Your task to perform on an android device: visit the assistant section in the google photos Image 0: 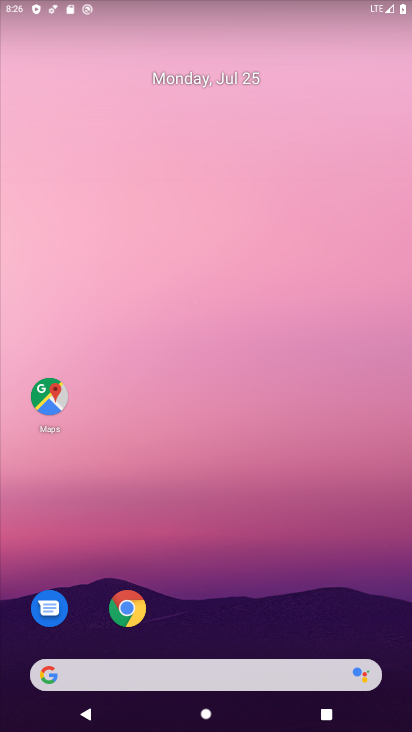
Step 0: drag from (227, 664) to (227, 78)
Your task to perform on an android device: visit the assistant section in the google photos Image 1: 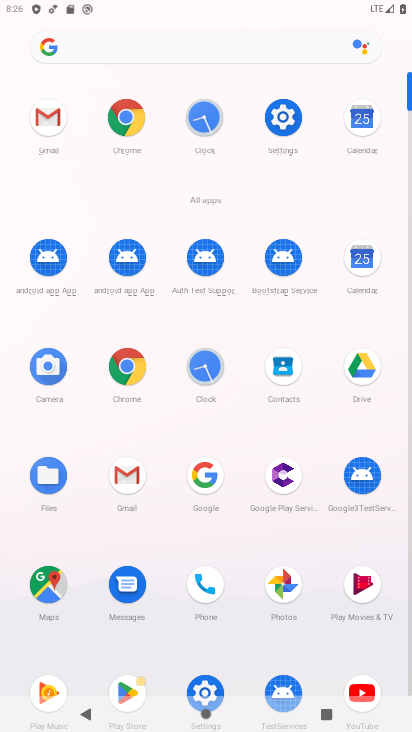
Step 1: click (286, 583)
Your task to perform on an android device: visit the assistant section in the google photos Image 2: 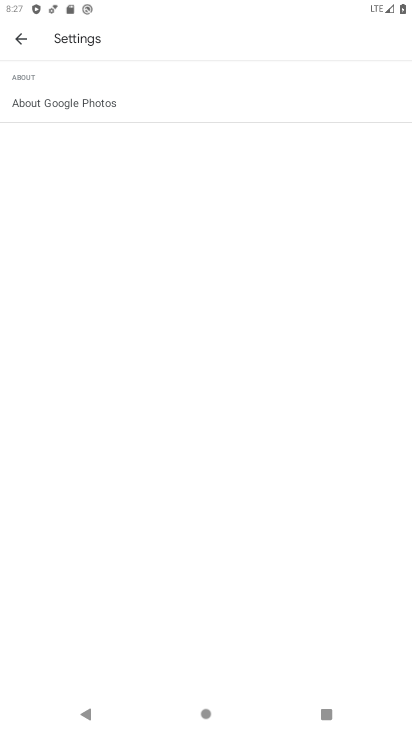
Step 2: click (19, 33)
Your task to perform on an android device: visit the assistant section in the google photos Image 3: 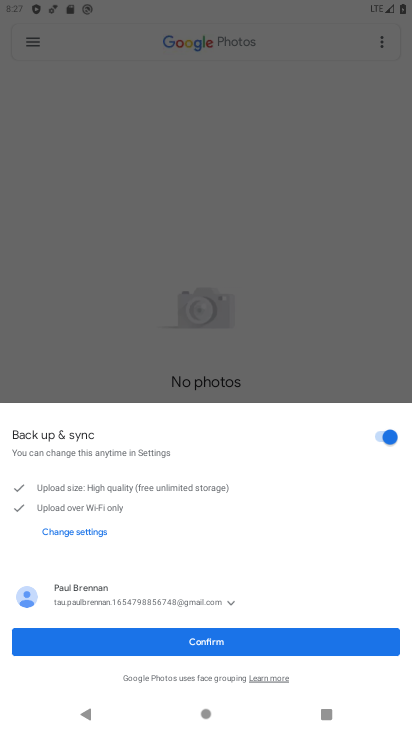
Step 3: click (181, 642)
Your task to perform on an android device: visit the assistant section in the google photos Image 4: 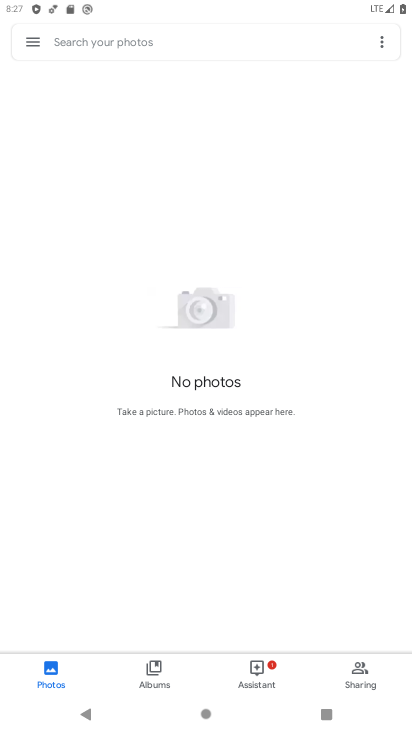
Step 4: click (261, 663)
Your task to perform on an android device: visit the assistant section in the google photos Image 5: 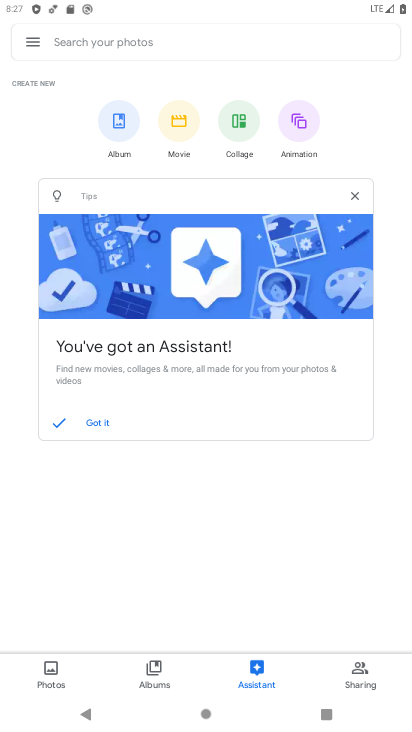
Step 5: task complete